Your task to perform on an android device: Search for a 24-inch cordless drill. Image 0: 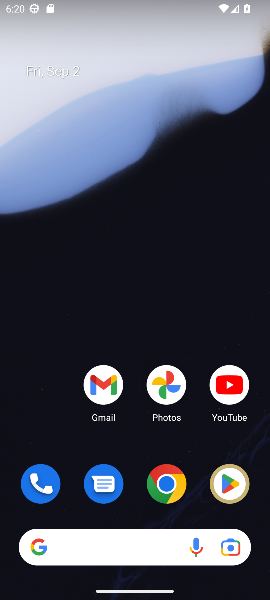
Step 0: click (160, 484)
Your task to perform on an android device: Search for a 24-inch cordless drill. Image 1: 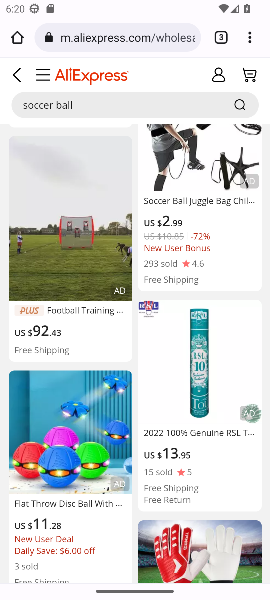
Step 1: click (161, 39)
Your task to perform on an android device: Search for a 24-inch cordless drill. Image 2: 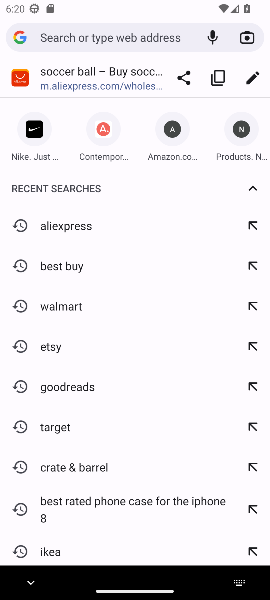
Step 2: type "24-inch cordless drill"
Your task to perform on an android device: Search for a 24-inch cordless drill. Image 3: 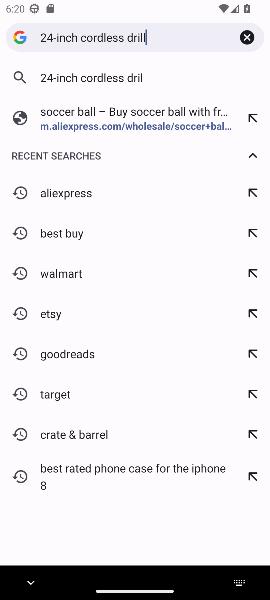
Step 3: press enter
Your task to perform on an android device: Search for a 24-inch cordless drill. Image 4: 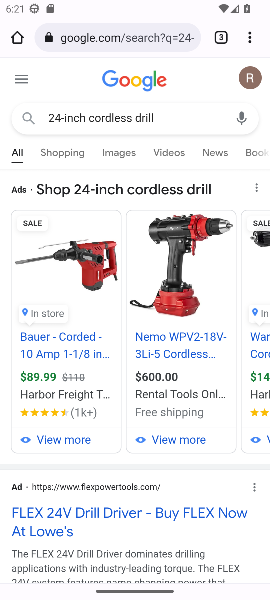
Step 4: task complete